Your task to perform on an android device: set default search engine in the chrome app Image 0: 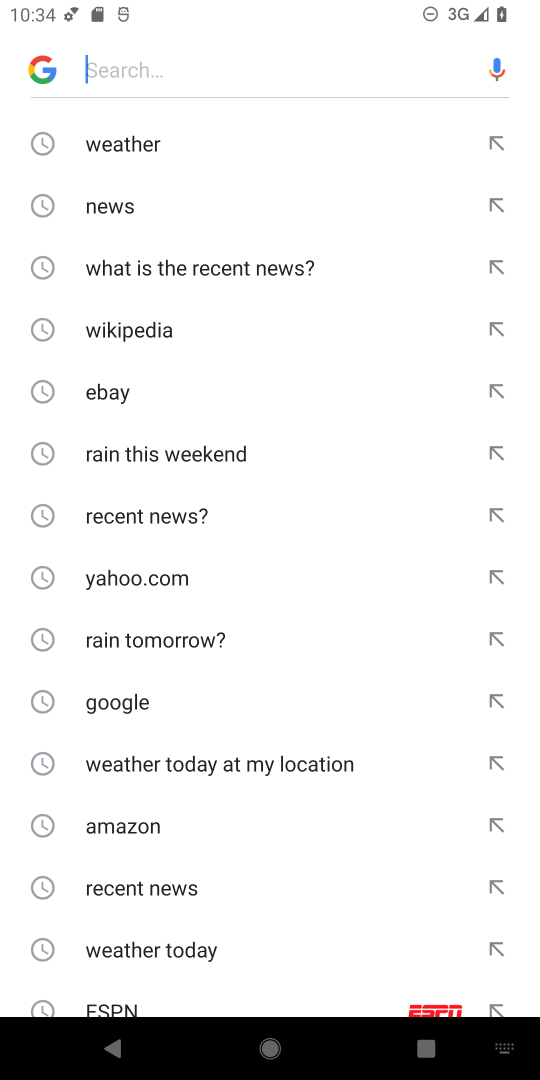
Step 0: press home button
Your task to perform on an android device: set default search engine in the chrome app Image 1: 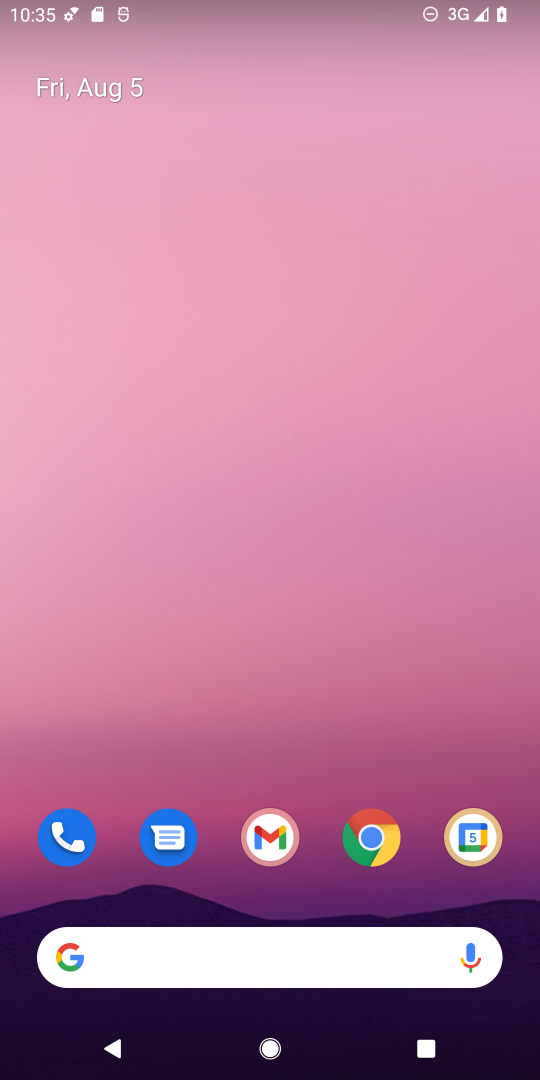
Step 1: click (373, 824)
Your task to perform on an android device: set default search engine in the chrome app Image 2: 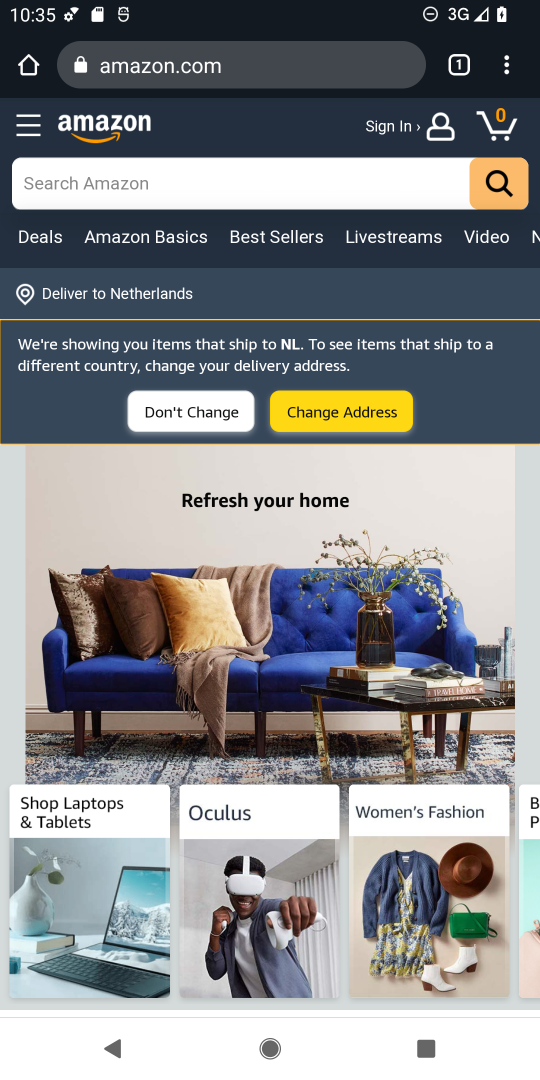
Step 2: click (508, 68)
Your task to perform on an android device: set default search engine in the chrome app Image 3: 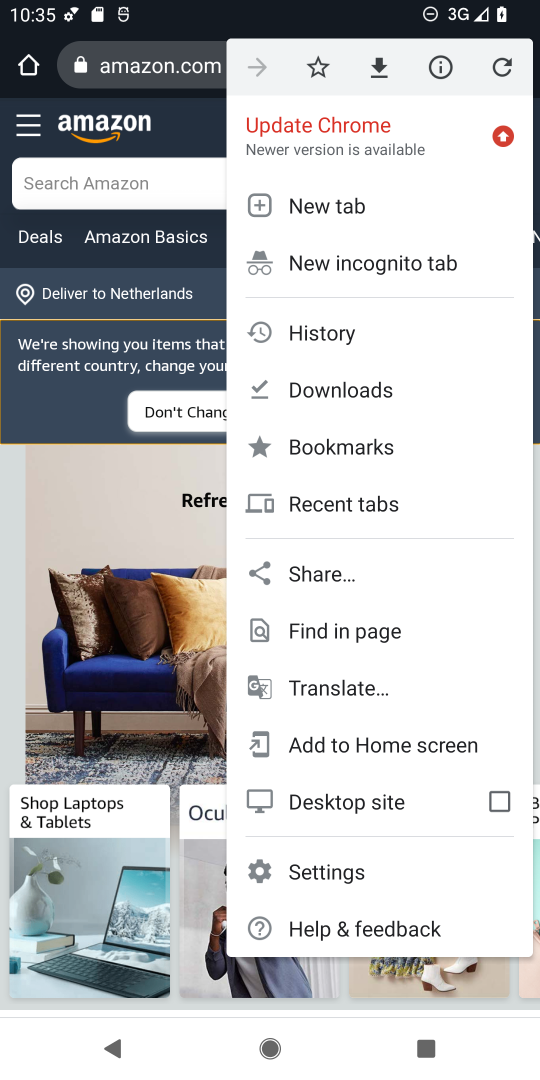
Step 3: click (315, 869)
Your task to perform on an android device: set default search engine in the chrome app Image 4: 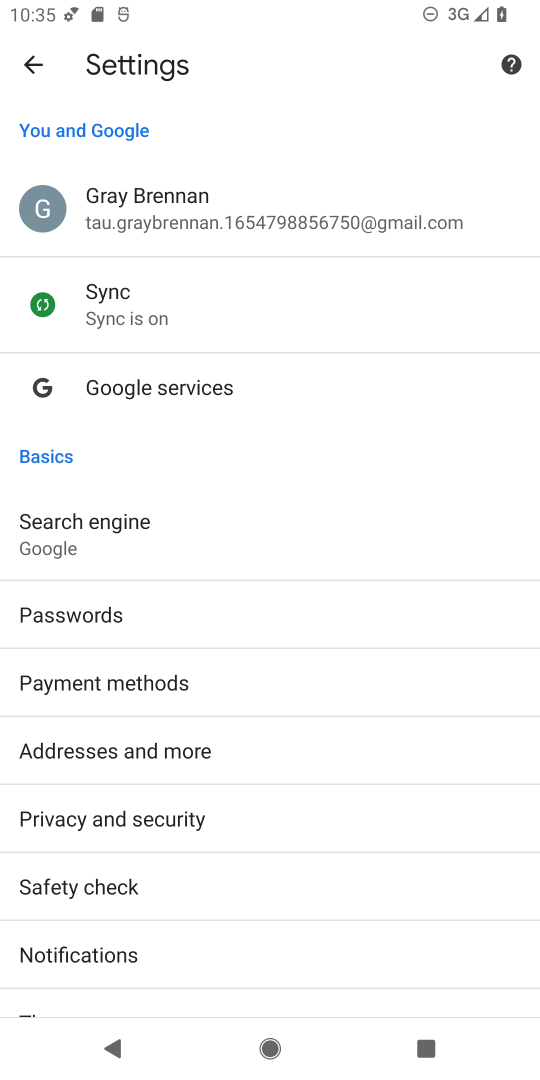
Step 4: click (147, 555)
Your task to perform on an android device: set default search engine in the chrome app Image 5: 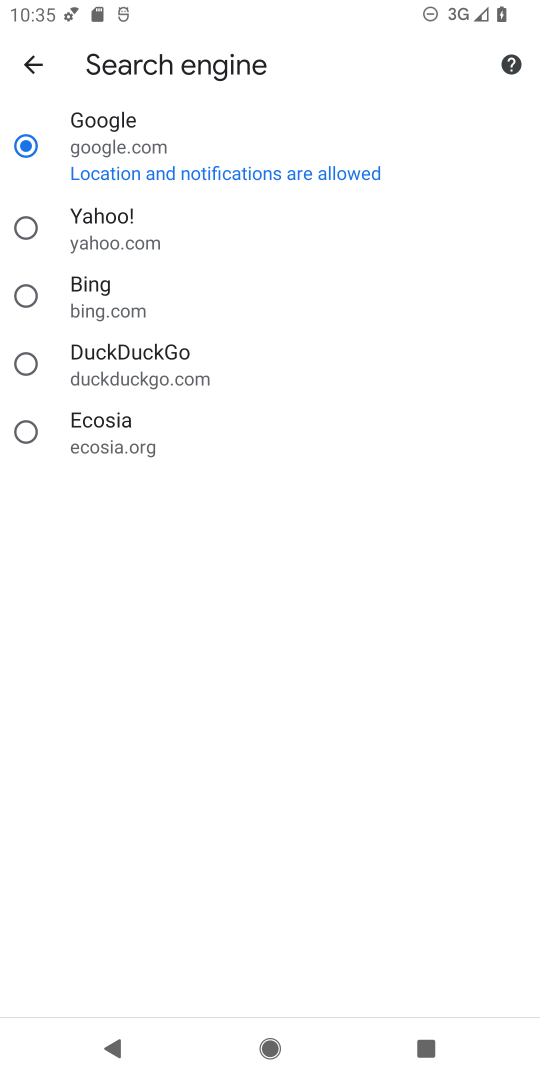
Step 5: task complete